Your task to perform on an android device: Open the SMS app Image 0: 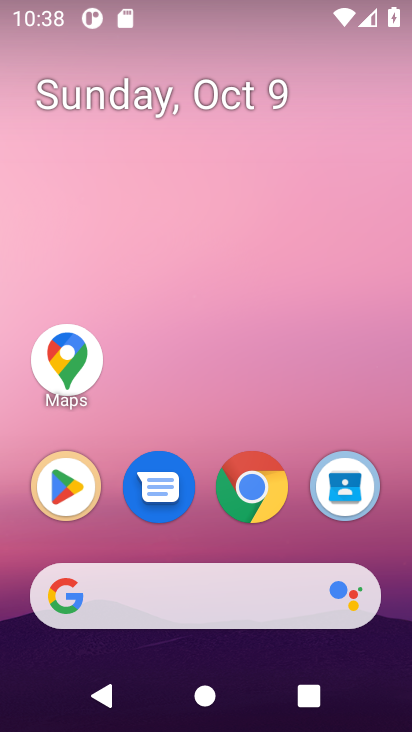
Step 0: click (142, 498)
Your task to perform on an android device: Open the SMS app Image 1: 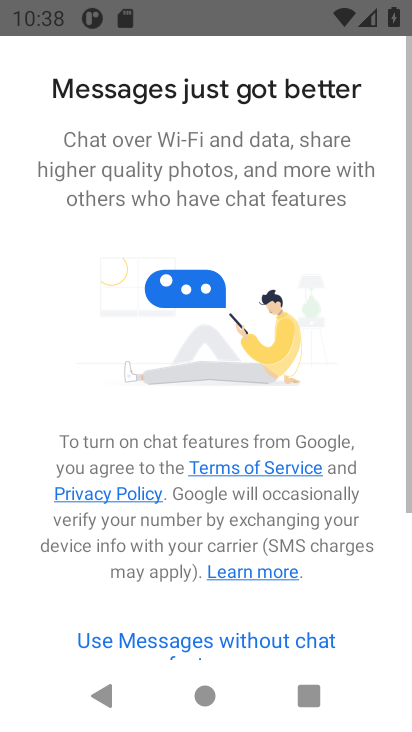
Step 1: drag from (290, 608) to (283, 400)
Your task to perform on an android device: Open the SMS app Image 2: 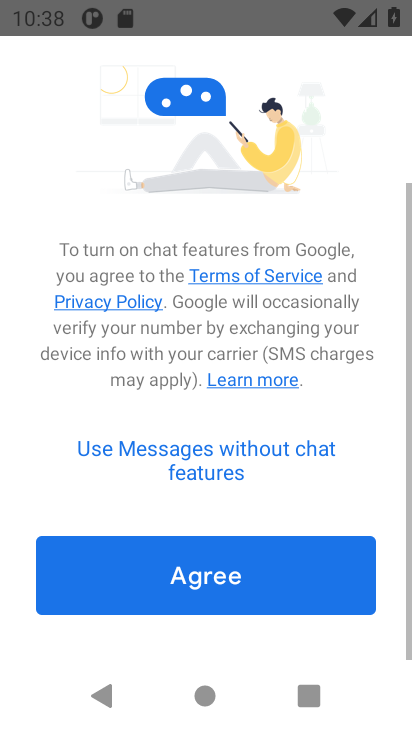
Step 2: click (255, 570)
Your task to perform on an android device: Open the SMS app Image 3: 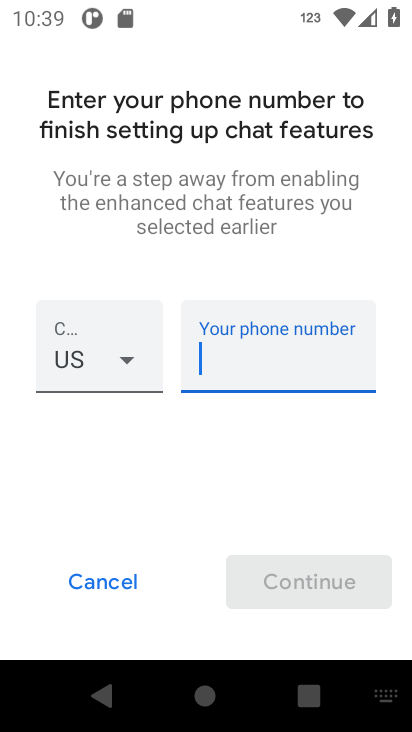
Step 3: drag from (195, 531) to (192, 446)
Your task to perform on an android device: Open the SMS app Image 4: 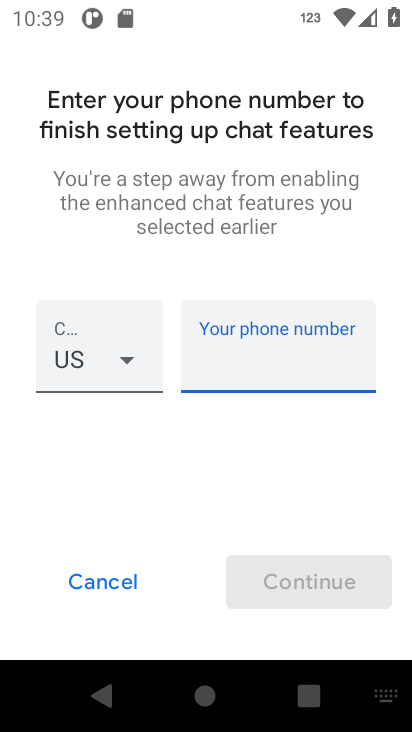
Step 4: click (114, 578)
Your task to perform on an android device: Open the SMS app Image 5: 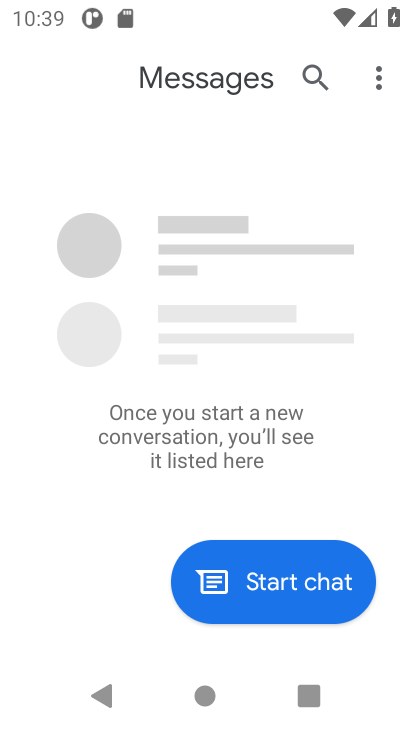
Step 5: task complete